Your task to perform on an android device: set default search engine in the chrome app Image 0: 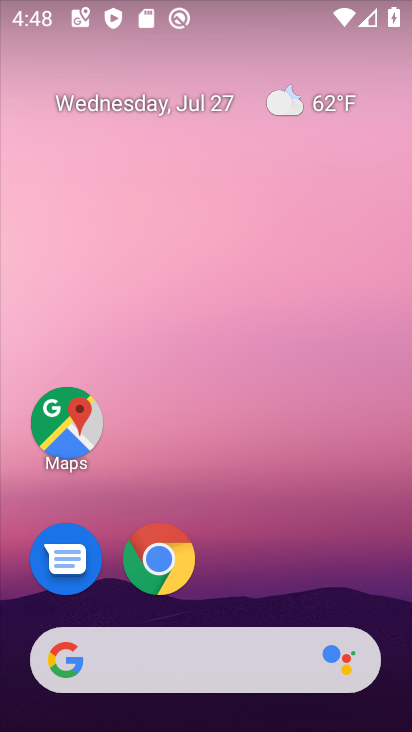
Step 0: click (148, 566)
Your task to perform on an android device: set default search engine in the chrome app Image 1: 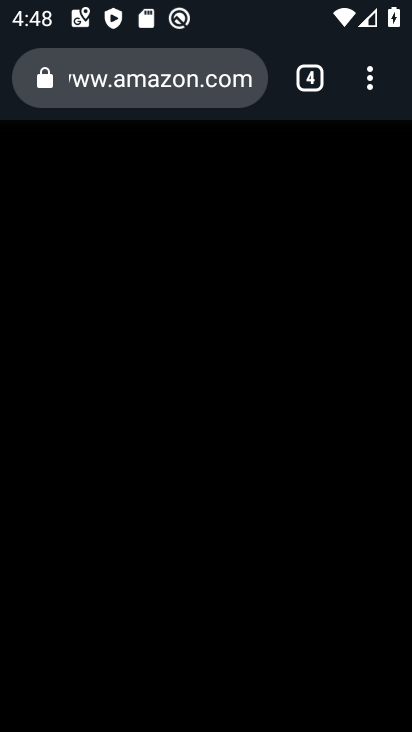
Step 1: drag from (369, 66) to (120, 609)
Your task to perform on an android device: set default search engine in the chrome app Image 2: 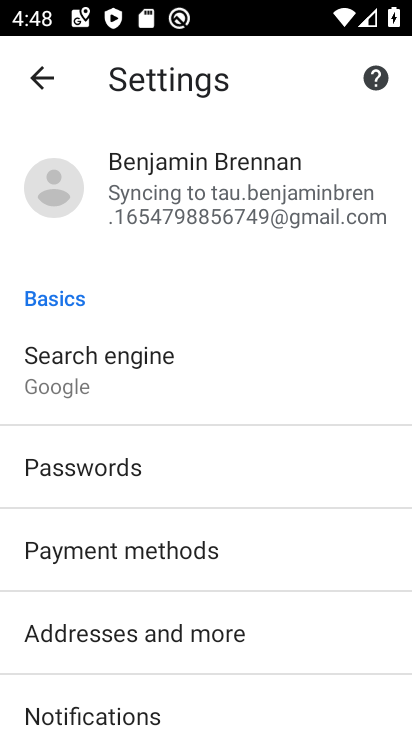
Step 2: click (110, 384)
Your task to perform on an android device: set default search engine in the chrome app Image 3: 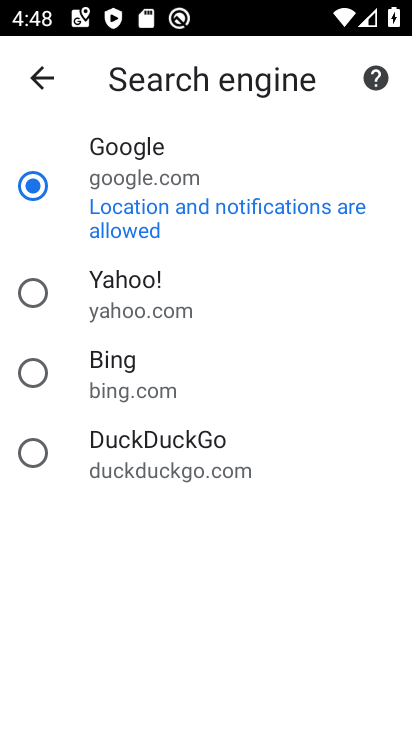
Step 3: click (40, 287)
Your task to perform on an android device: set default search engine in the chrome app Image 4: 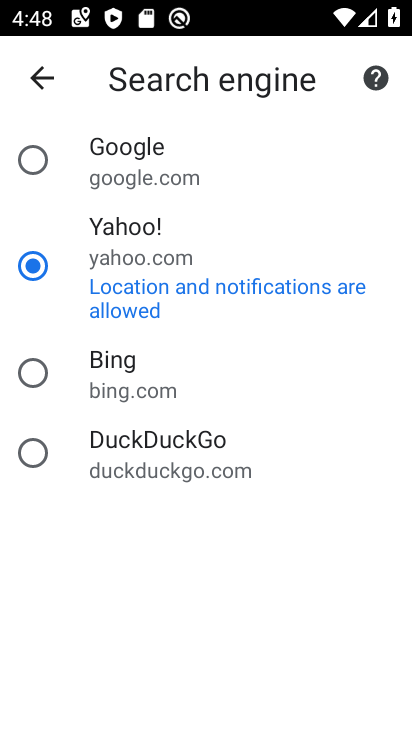
Step 4: task complete